Your task to perform on an android device: change keyboard looks Image 0: 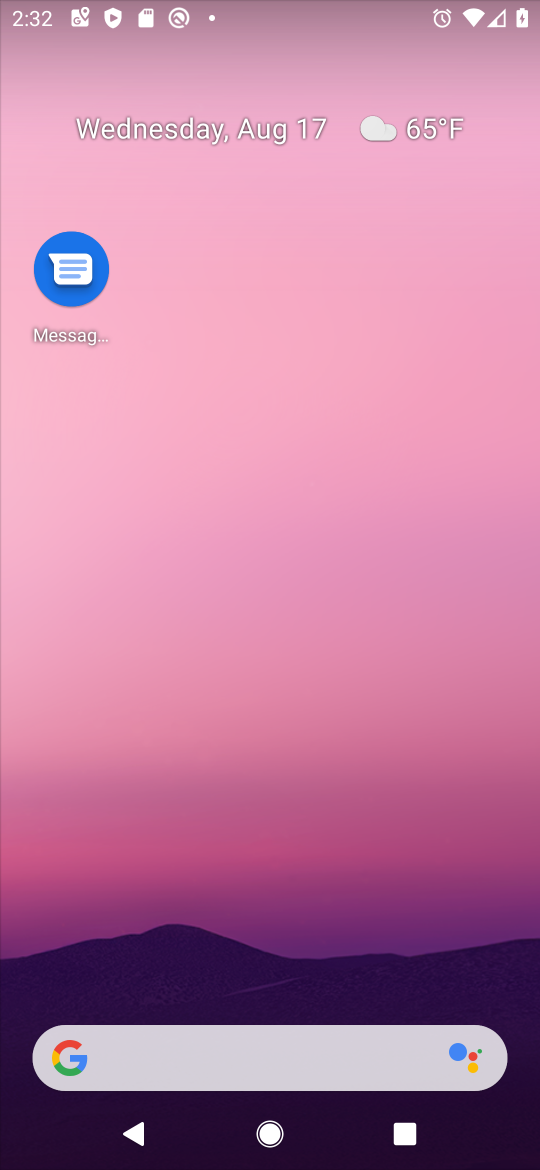
Step 0: drag from (217, 968) to (159, 1)
Your task to perform on an android device: change keyboard looks Image 1: 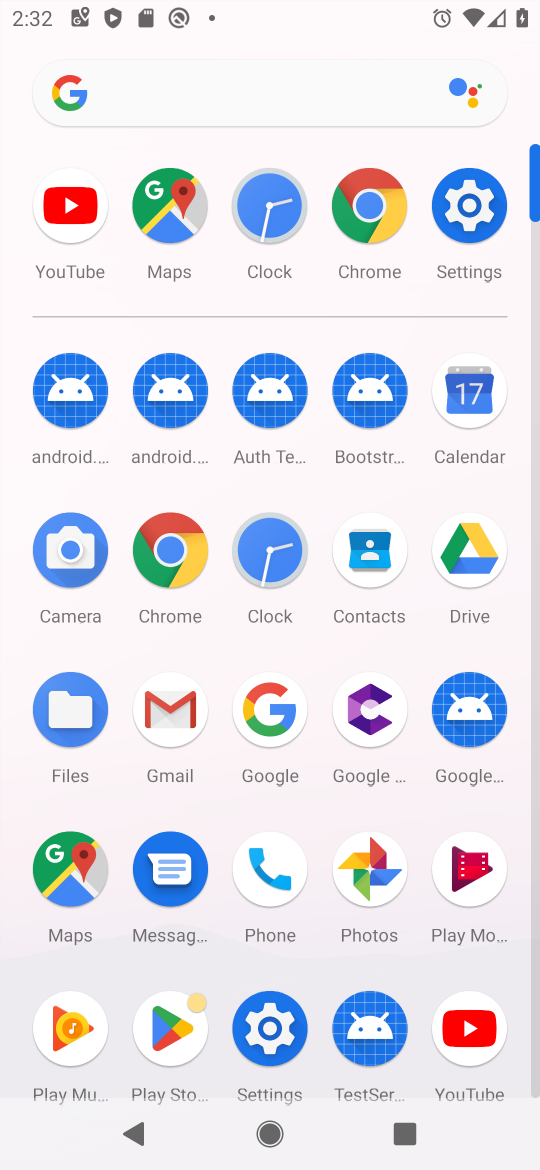
Step 1: click (478, 215)
Your task to perform on an android device: change keyboard looks Image 2: 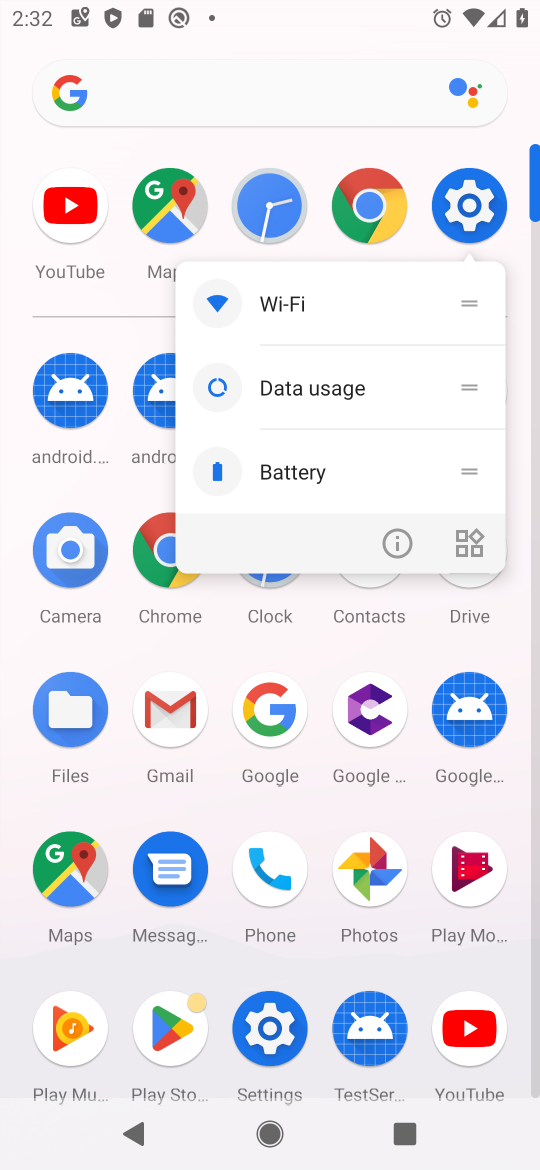
Step 2: click (479, 205)
Your task to perform on an android device: change keyboard looks Image 3: 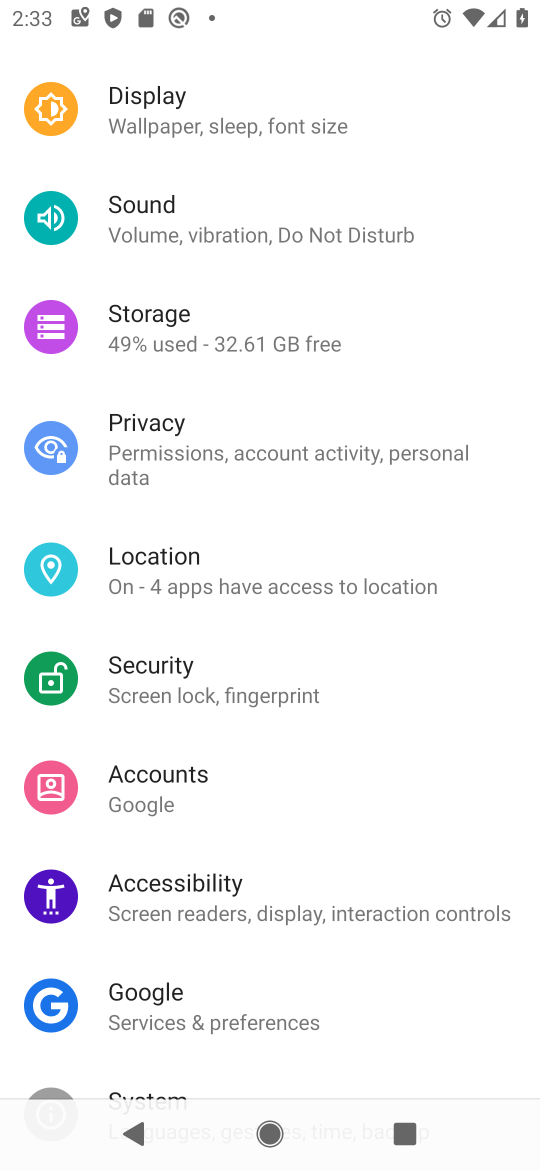
Step 3: drag from (274, 987) to (229, 454)
Your task to perform on an android device: change keyboard looks Image 4: 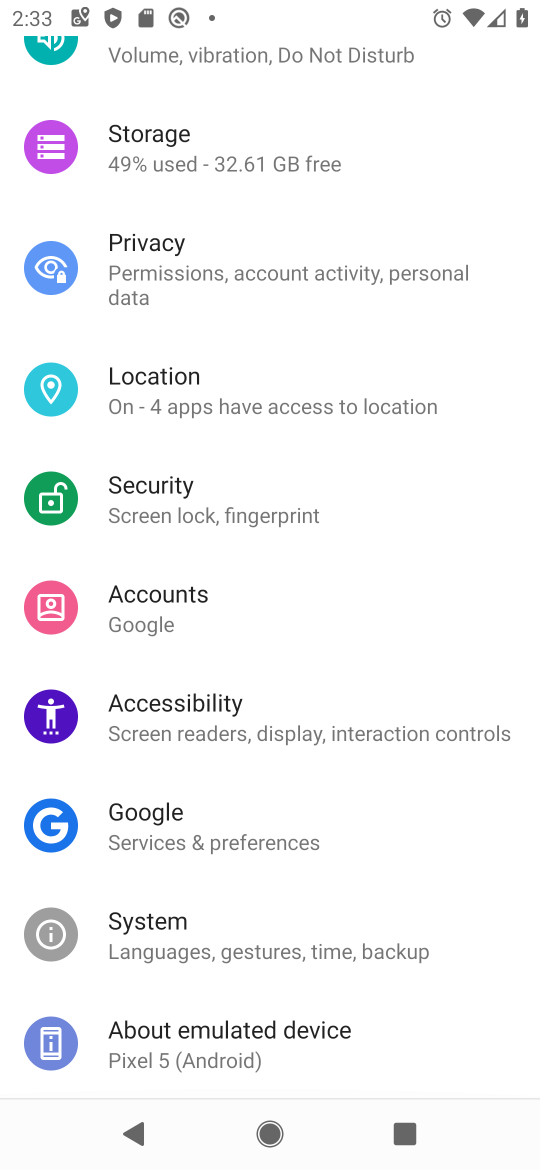
Step 4: click (140, 920)
Your task to perform on an android device: change keyboard looks Image 5: 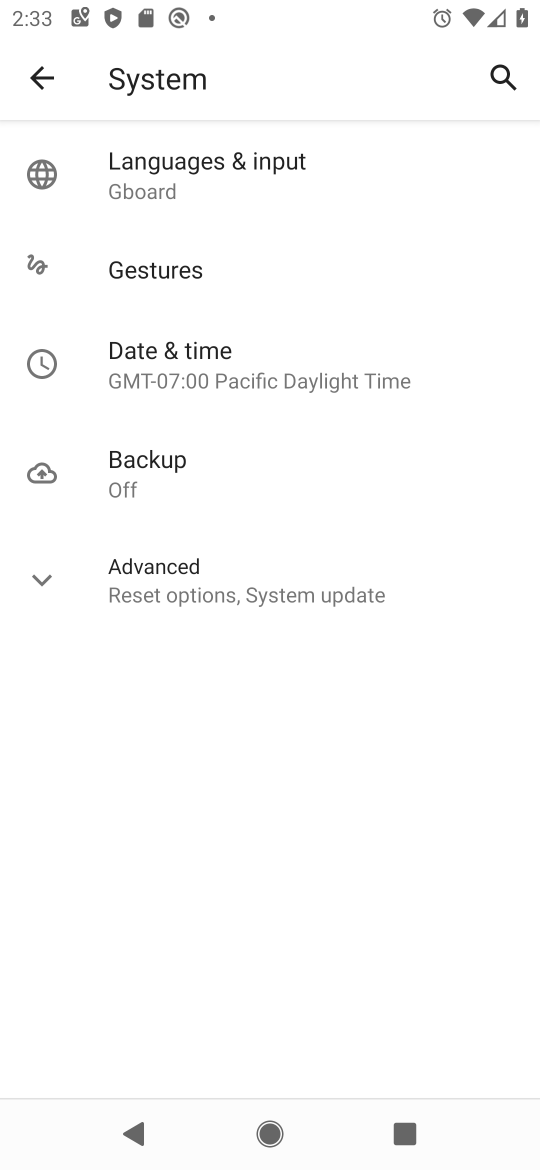
Step 5: click (207, 591)
Your task to perform on an android device: change keyboard looks Image 6: 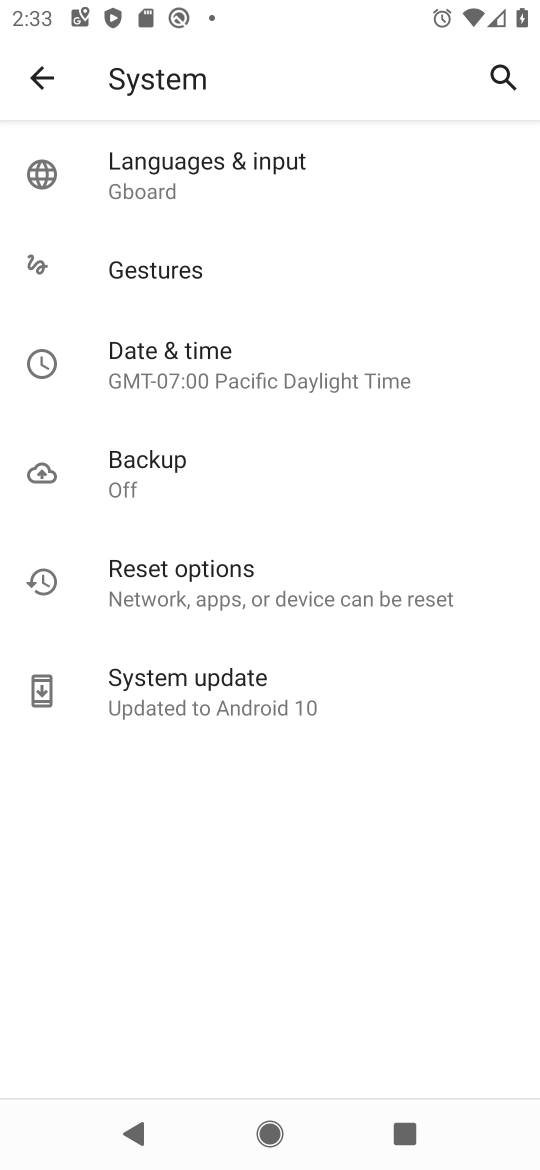
Step 6: click (214, 170)
Your task to perform on an android device: change keyboard looks Image 7: 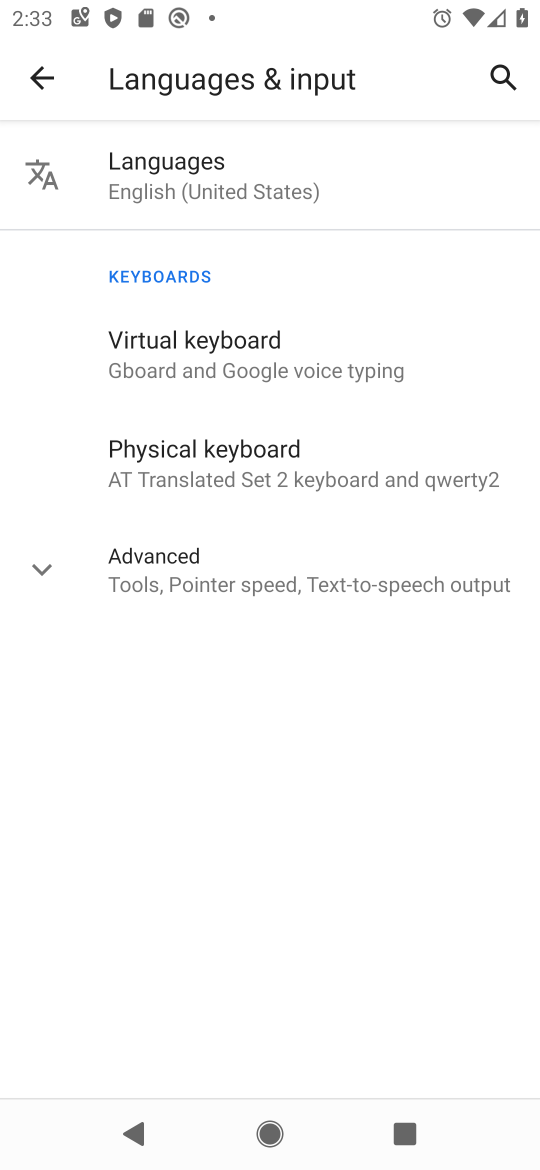
Step 7: click (143, 337)
Your task to perform on an android device: change keyboard looks Image 8: 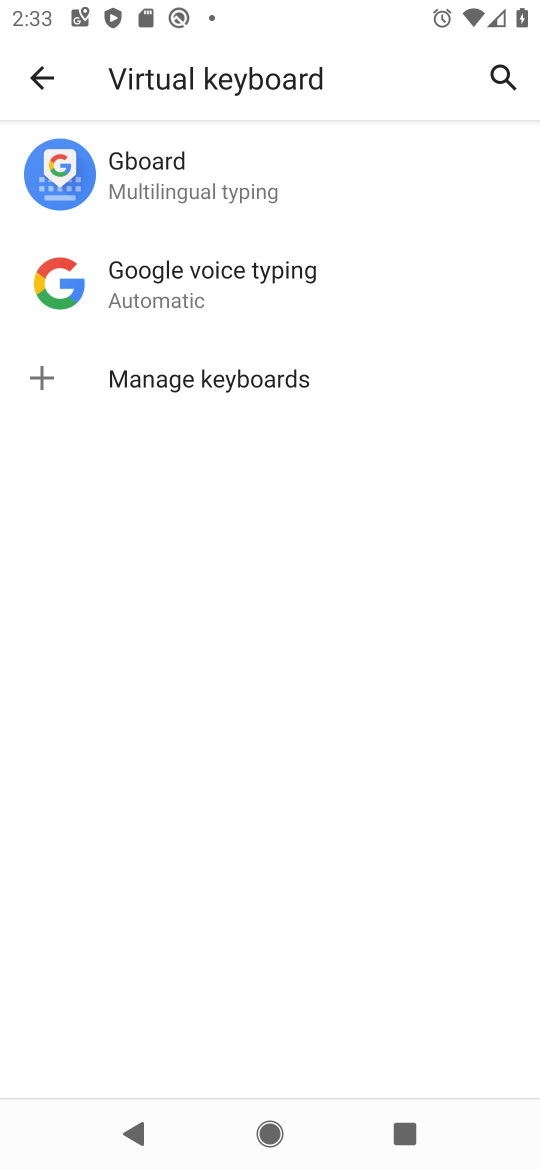
Step 8: click (137, 154)
Your task to perform on an android device: change keyboard looks Image 9: 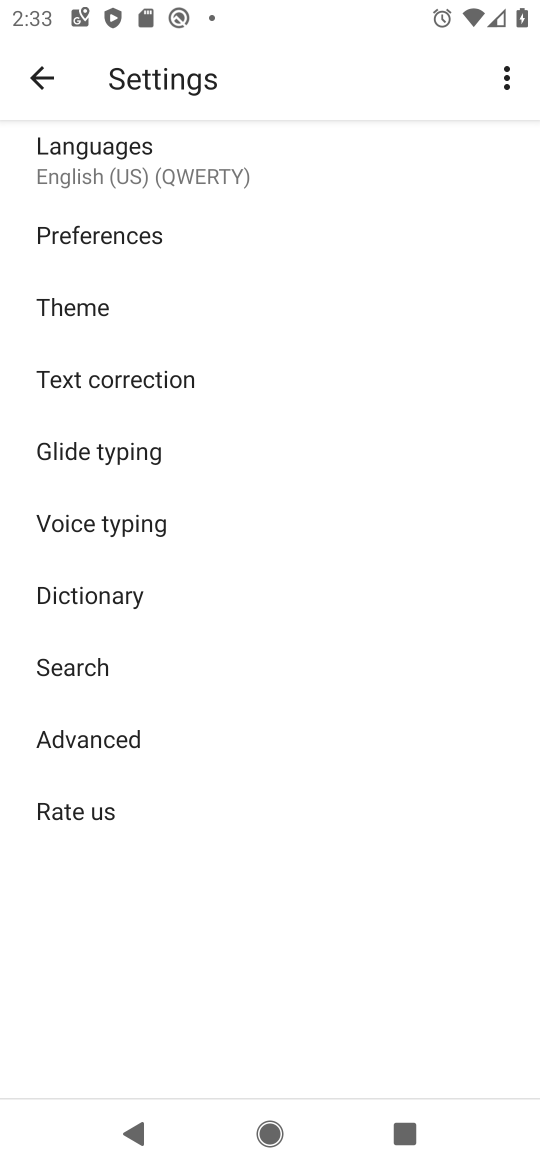
Step 9: click (81, 296)
Your task to perform on an android device: change keyboard looks Image 10: 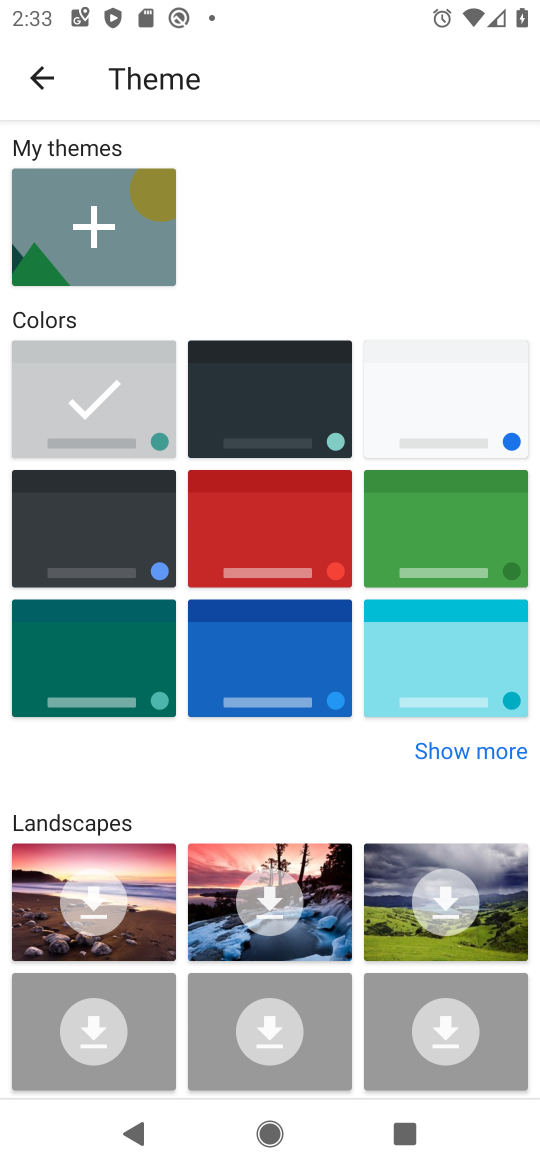
Step 10: click (234, 388)
Your task to perform on an android device: change keyboard looks Image 11: 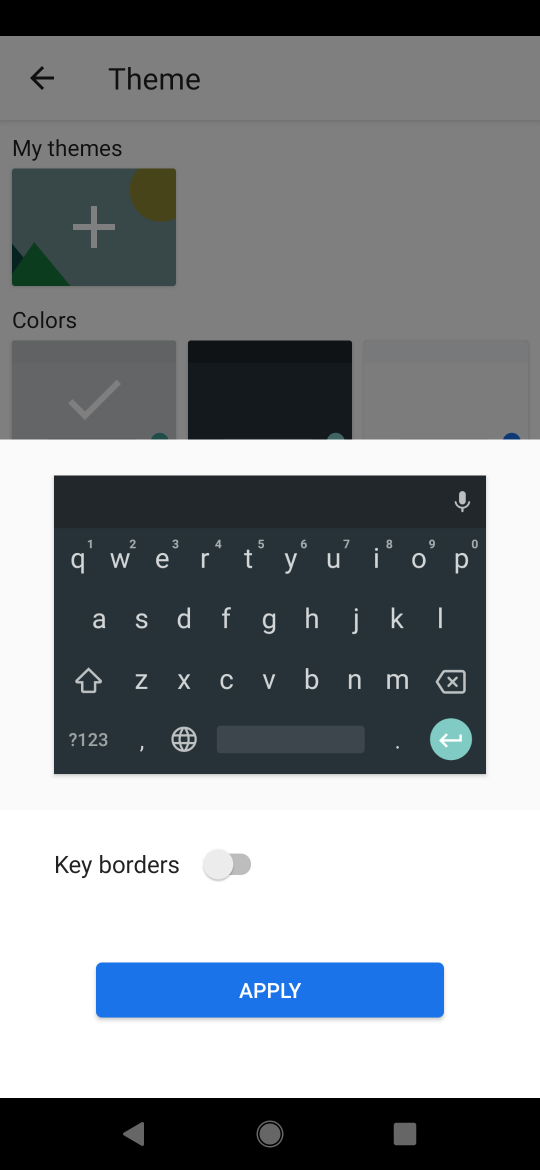
Step 11: click (206, 978)
Your task to perform on an android device: change keyboard looks Image 12: 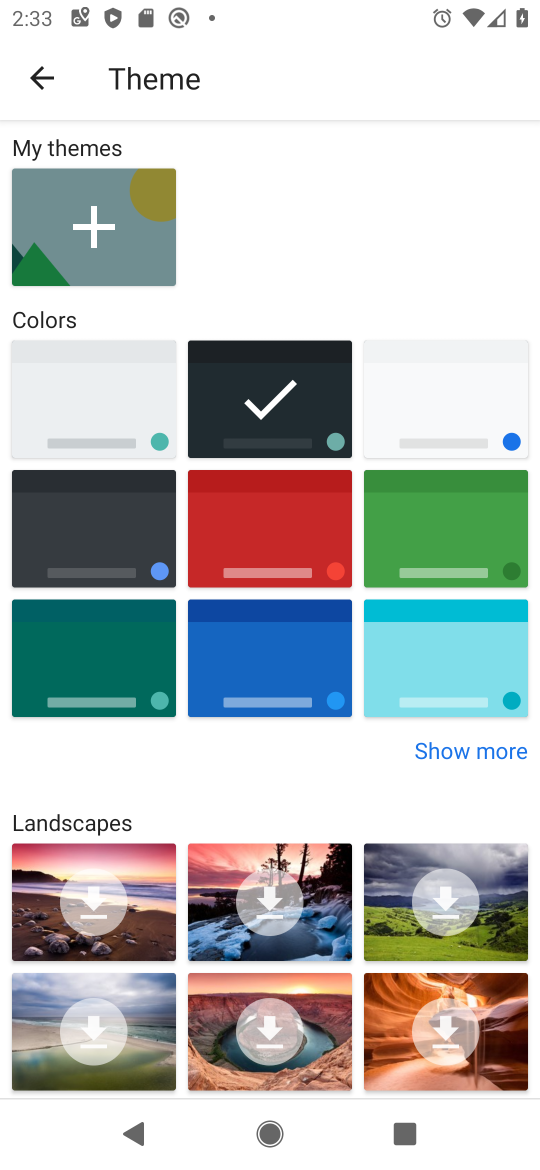
Step 12: task complete